Your task to perform on an android device: change the clock display to show seconds Image 0: 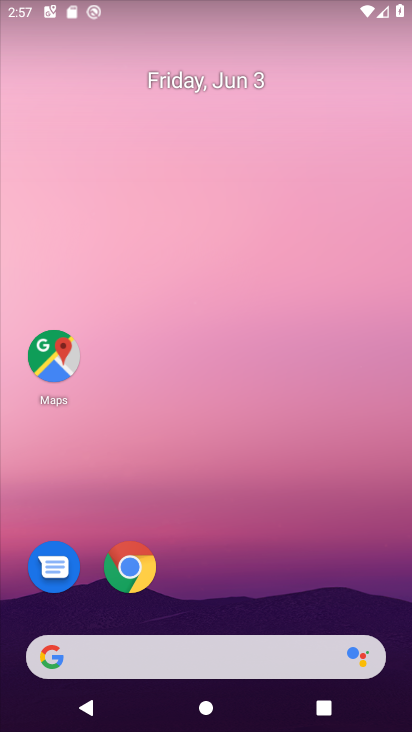
Step 0: drag from (223, 662) to (231, 194)
Your task to perform on an android device: change the clock display to show seconds Image 1: 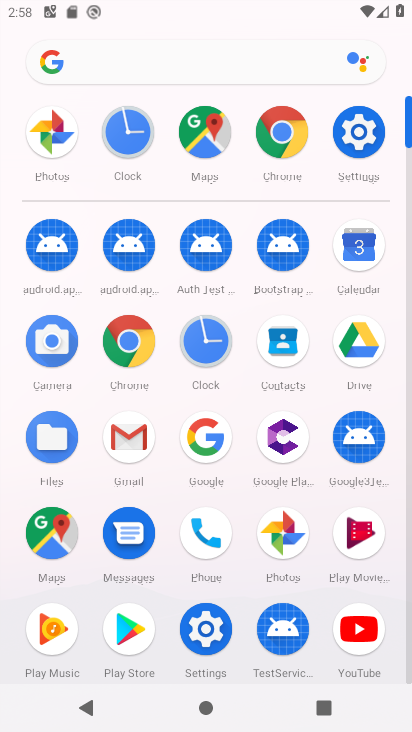
Step 1: click (203, 336)
Your task to perform on an android device: change the clock display to show seconds Image 2: 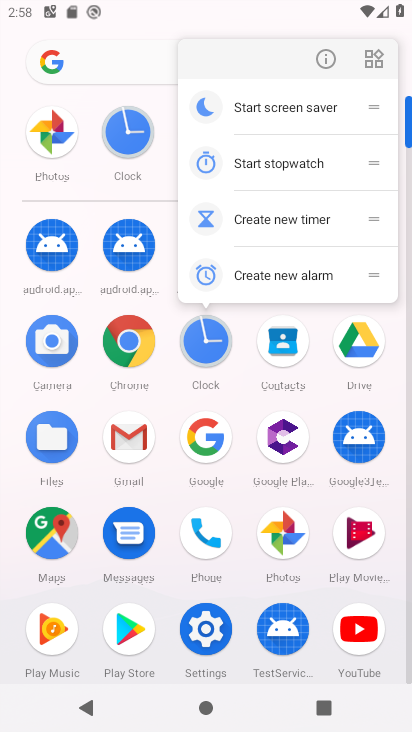
Step 2: click (197, 337)
Your task to perform on an android device: change the clock display to show seconds Image 3: 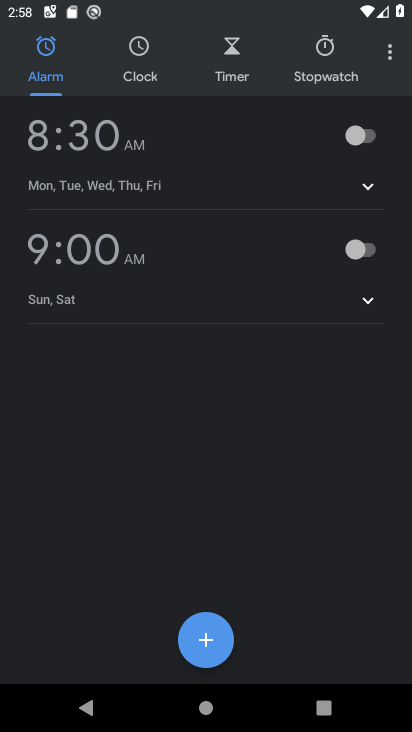
Step 3: click (390, 59)
Your task to perform on an android device: change the clock display to show seconds Image 4: 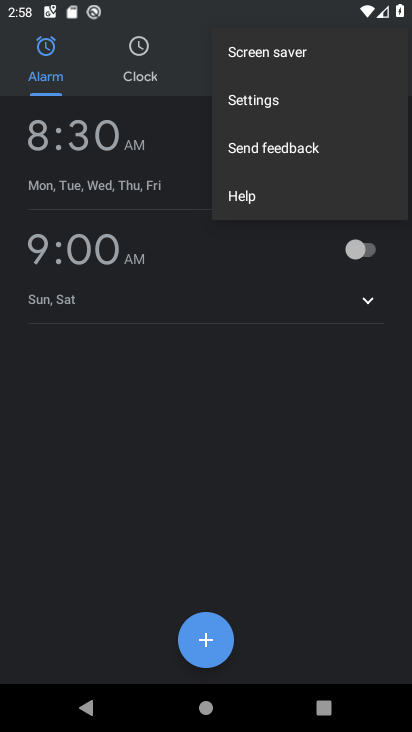
Step 4: click (279, 98)
Your task to perform on an android device: change the clock display to show seconds Image 5: 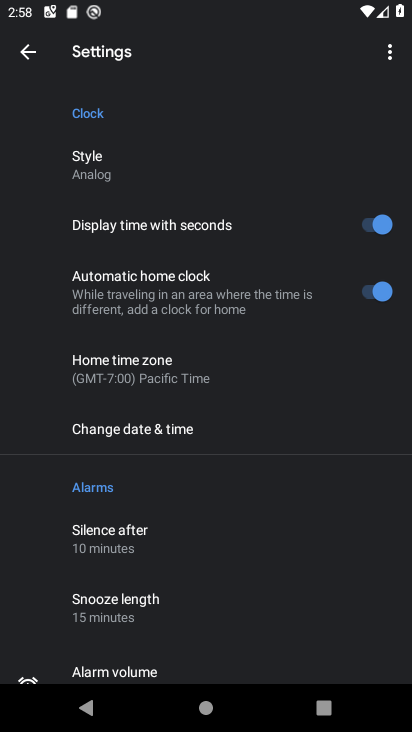
Step 5: task complete